Your task to perform on an android device: open a bookmark in the chrome app Image 0: 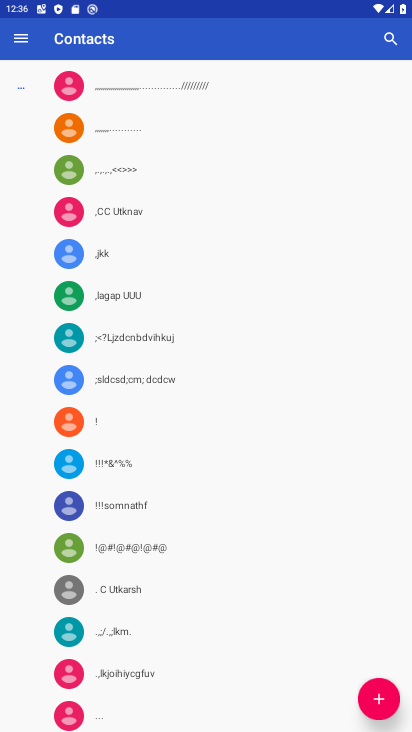
Step 0: press home button
Your task to perform on an android device: open a bookmark in the chrome app Image 1: 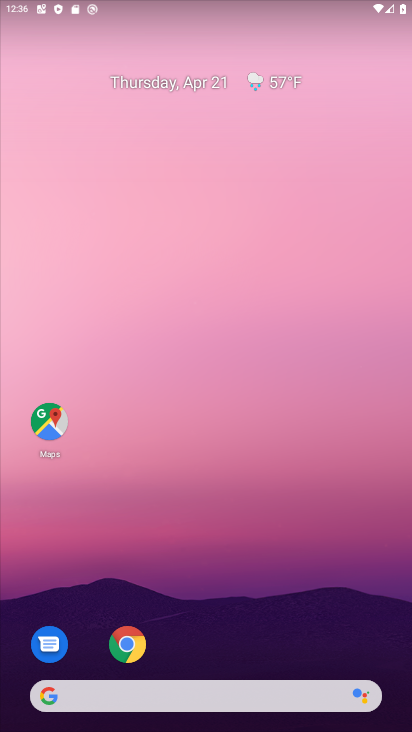
Step 1: drag from (203, 666) to (207, 5)
Your task to perform on an android device: open a bookmark in the chrome app Image 2: 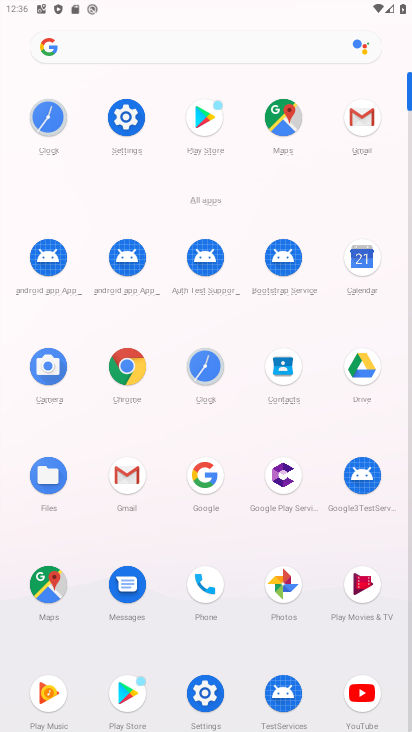
Step 2: click (129, 381)
Your task to perform on an android device: open a bookmark in the chrome app Image 3: 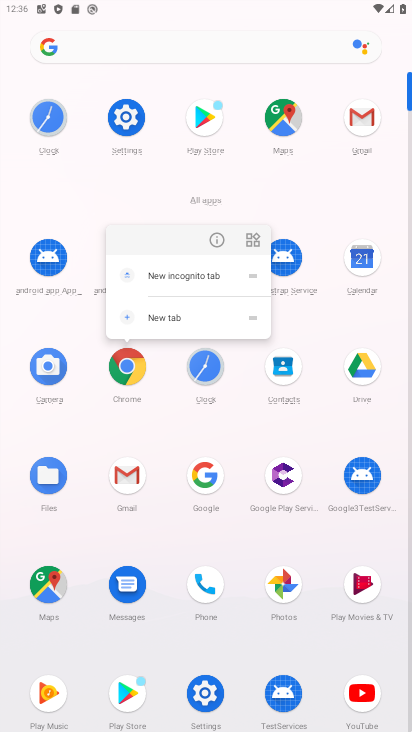
Step 3: click (137, 367)
Your task to perform on an android device: open a bookmark in the chrome app Image 4: 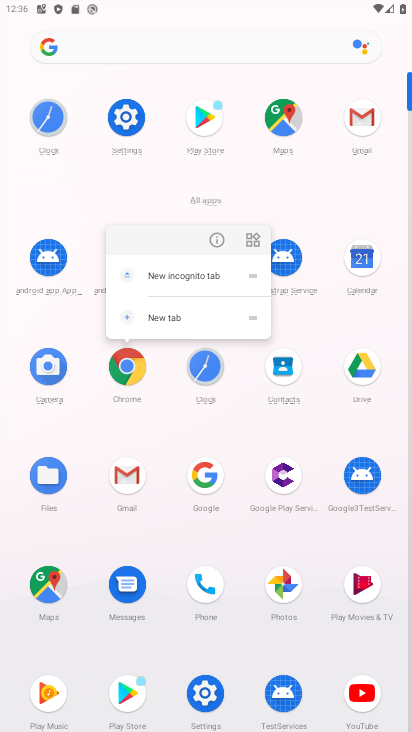
Step 4: click (130, 367)
Your task to perform on an android device: open a bookmark in the chrome app Image 5: 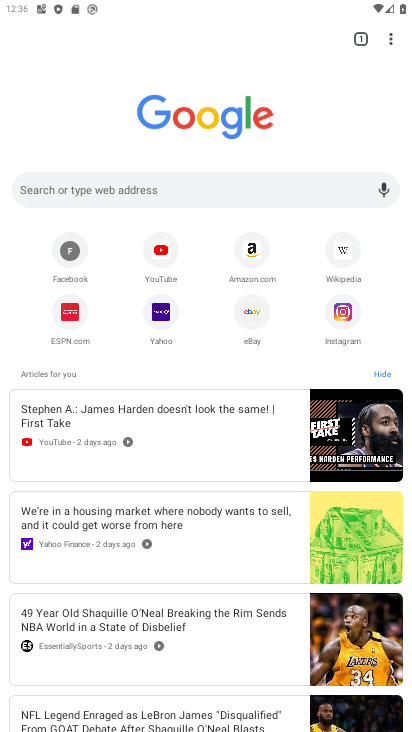
Step 5: task complete